Your task to perform on an android device: Go to location settings Image 0: 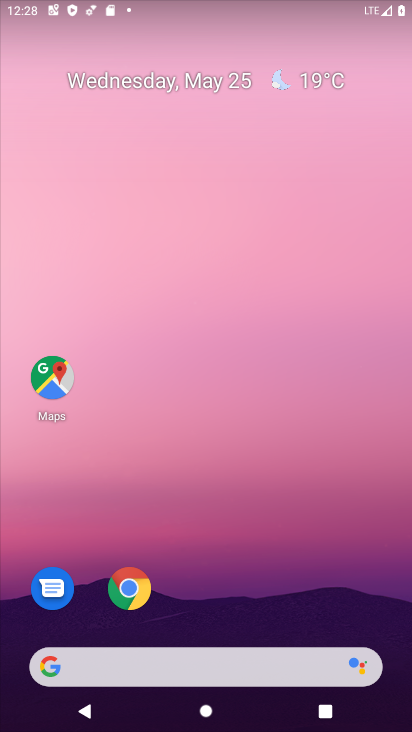
Step 0: drag from (193, 566) to (276, 166)
Your task to perform on an android device: Go to location settings Image 1: 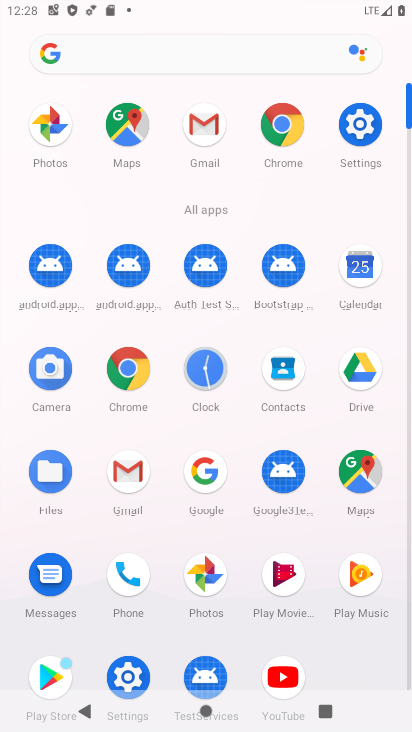
Step 1: drag from (123, 608) to (151, 455)
Your task to perform on an android device: Go to location settings Image 2: 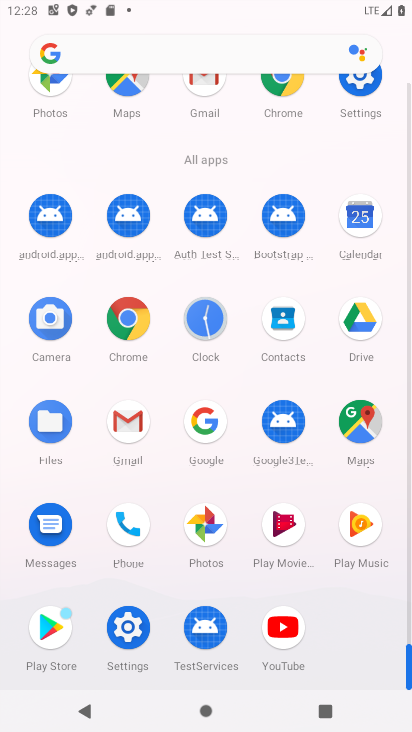
Step 2: click (119, 635)
Your task to perform on an android device: Go to location settings Image 3: 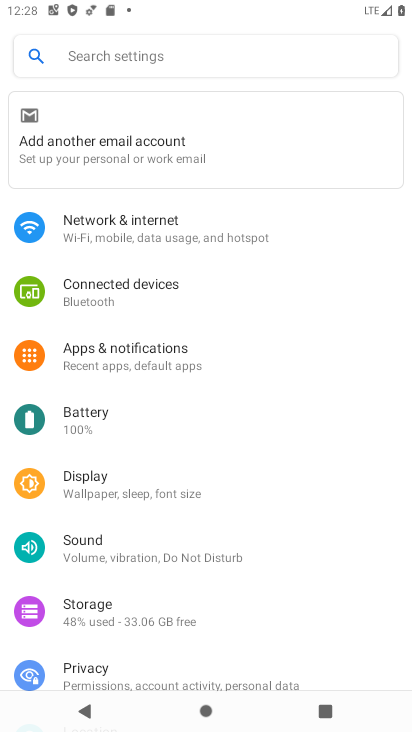
Step 3: drag from (108, 570) to (208, 244)
Your task to perform on an android device: Go to location settings Image 4: 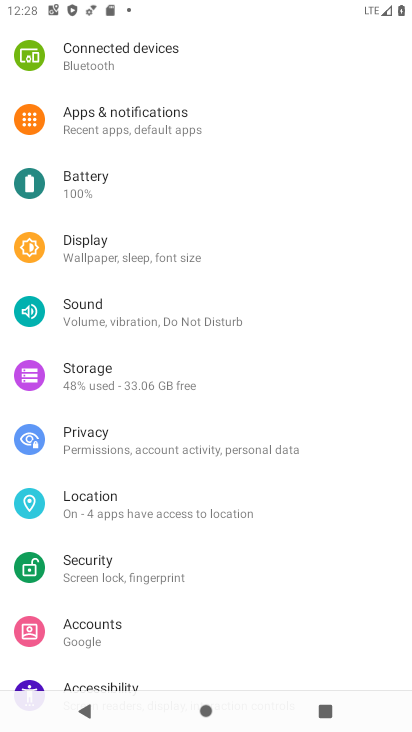
Step 4: click (120, 505)
Your task to perform on an android device: Go to location settings Image 5: 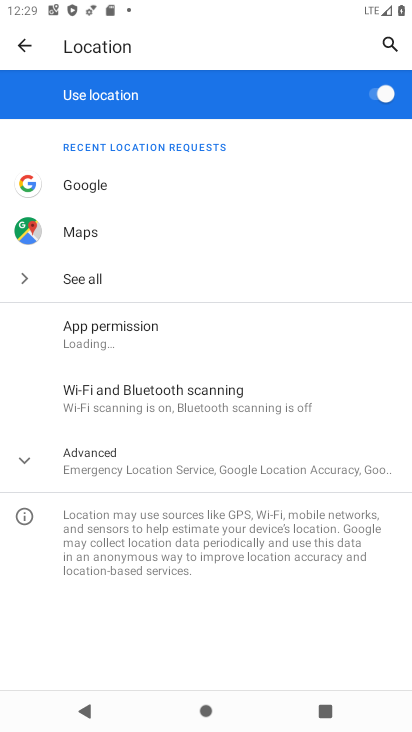
Step 5: click (142, 463)
Your task to perform on an android device: Go to location settings Image 6: 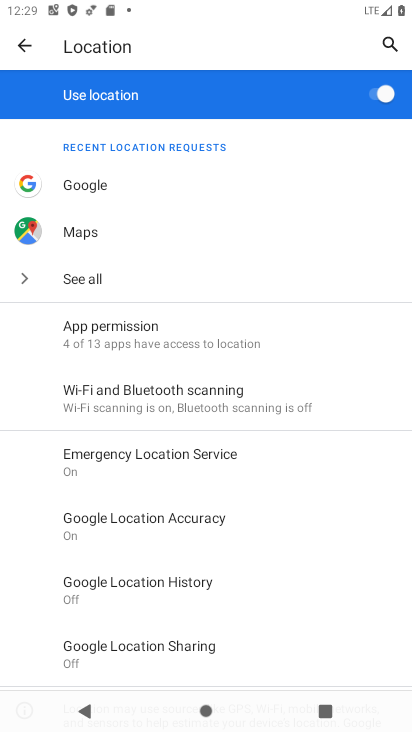
Step 6: task complete